Your task to perform on an android device: Clear all items from cart on target. Search for "logitech g pro" on target, select the first entry, and add it to the cart. Image 0: 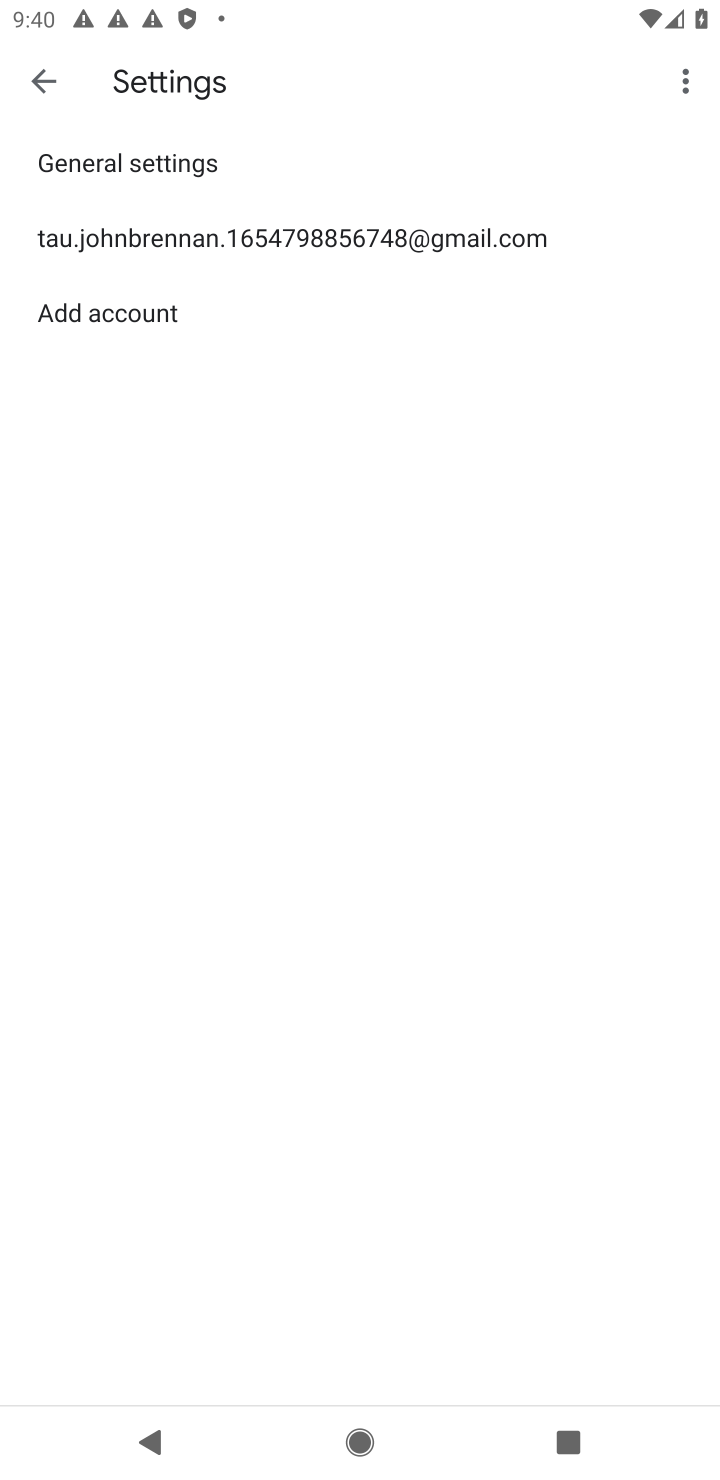
Step 0: click (46, 64)
Your task to perform on an android device: Clear all items from cart on target. Search for "logitech g pro" on target, select the first entry, and add it to the cart. Image 1: 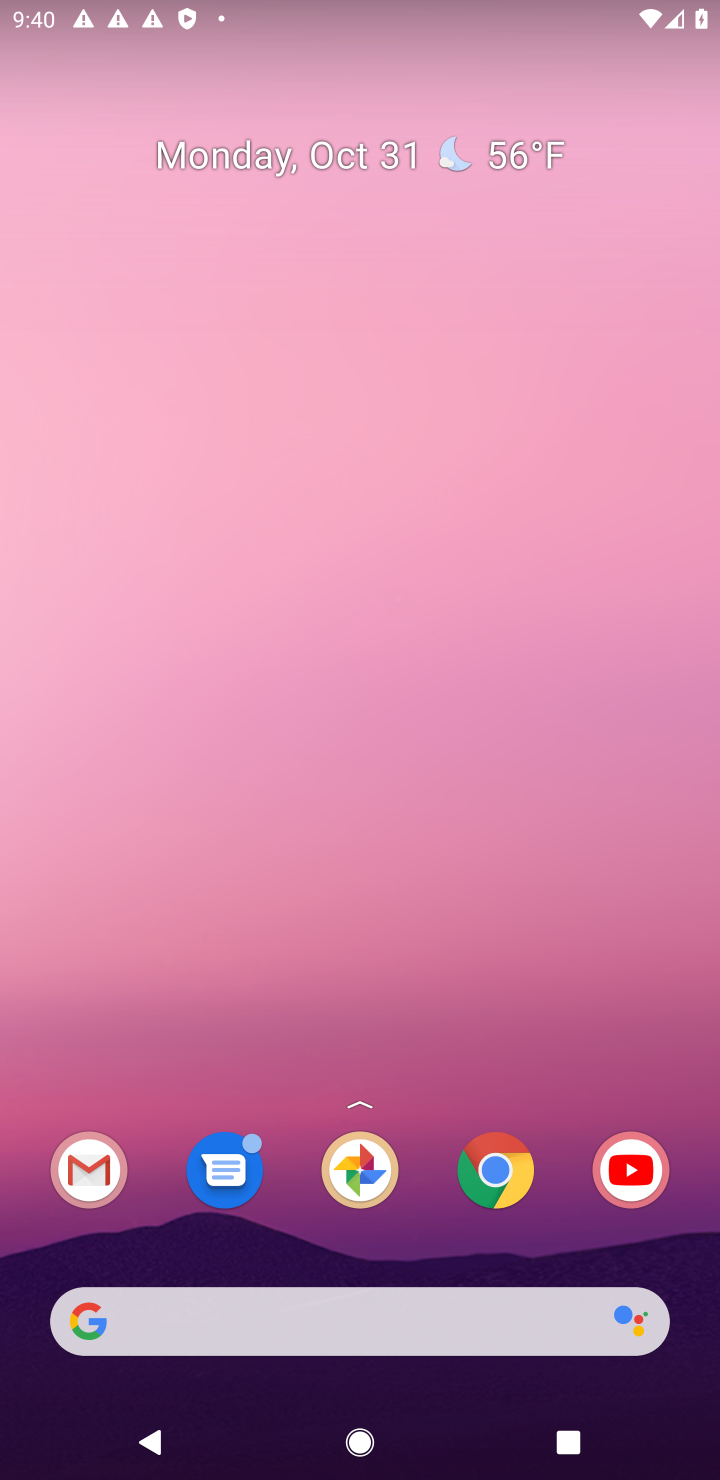
Step 1: click (380, 1316)
Your task to perform on an android device: Clear all items from cart on target. Search for "logitech g pro" on target, select the first entry, and add it to the cart. Image 2: 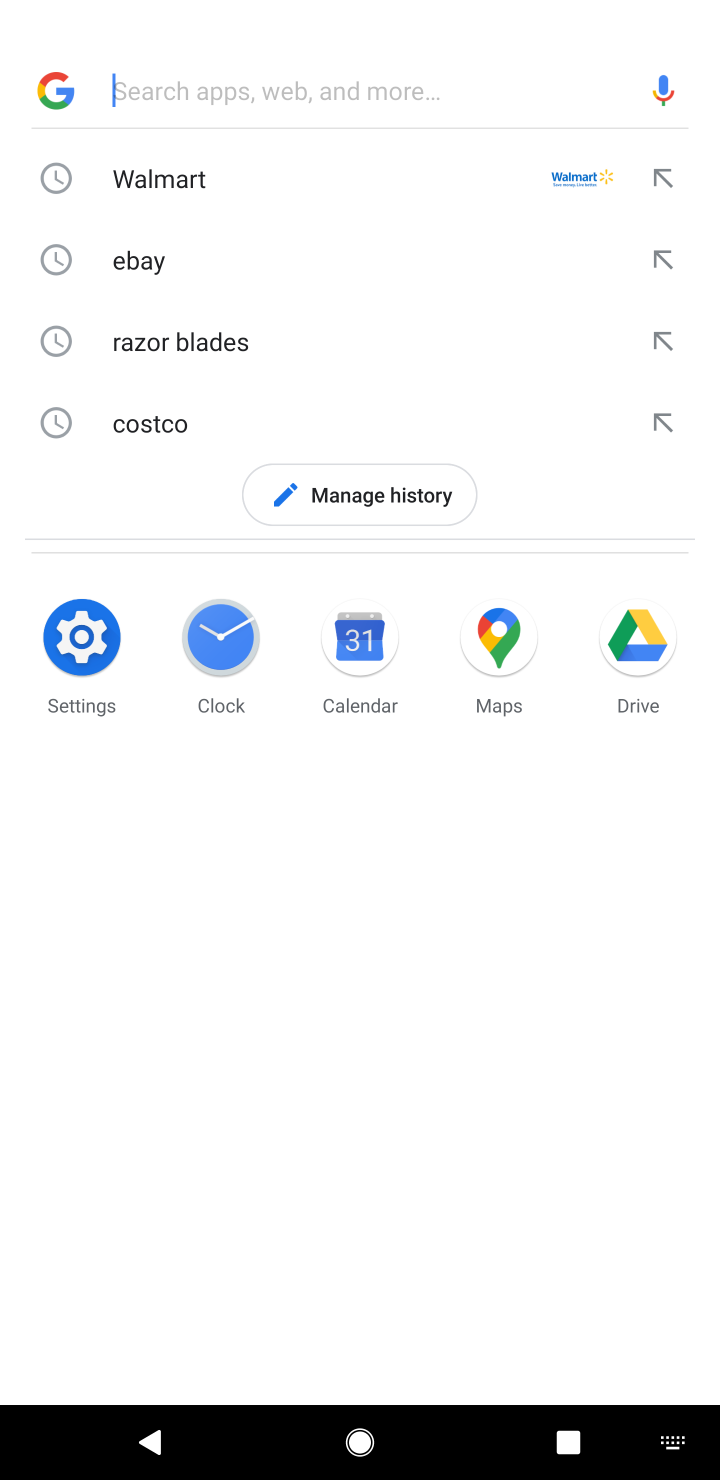
Step 2: type "target"
Your task to perform on an android device: Clear all items from cart on target. Search for "logitech g pro" on target, select the first entry, and add it to the cart. Image 3: 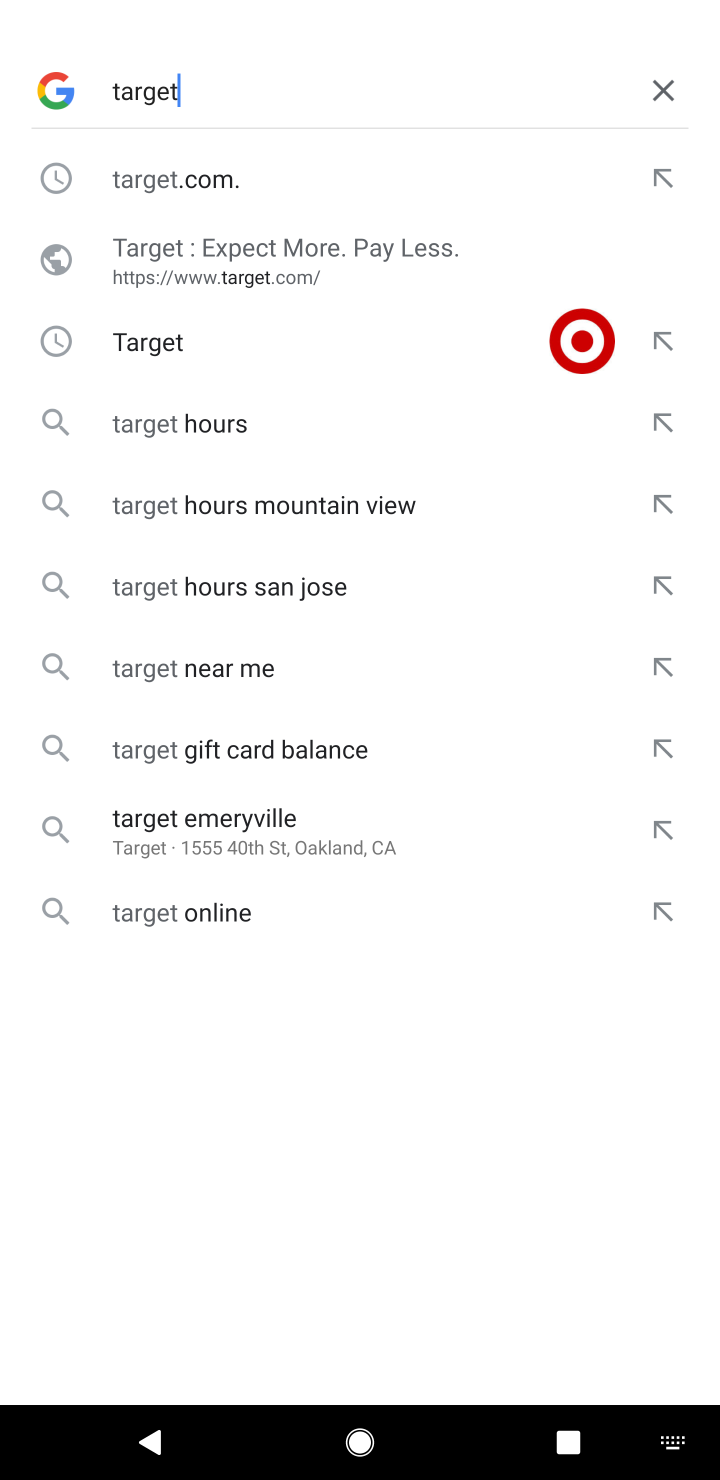
Step 3: click (267, 251)
Your task to perform on an android device: Clear all items from cart on target. Search for "logitech g pro" on target, select the first entry, and add it to the cart. Image 4: 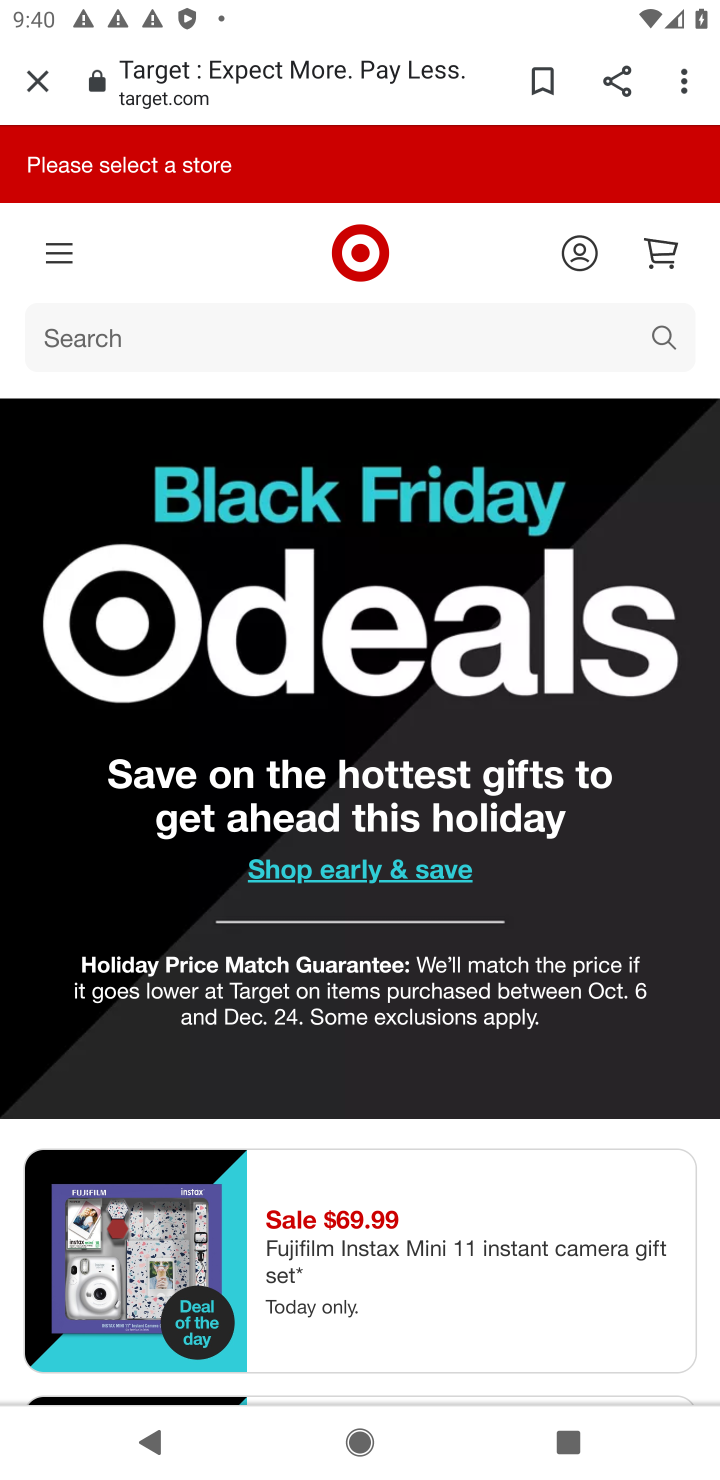
Step 4: click (533, 348)
Your task to perform on an android device: Clear all items from cart on target. Search for "logitech g pro" on target, select the first entry, and add it to the cart. Image 5: 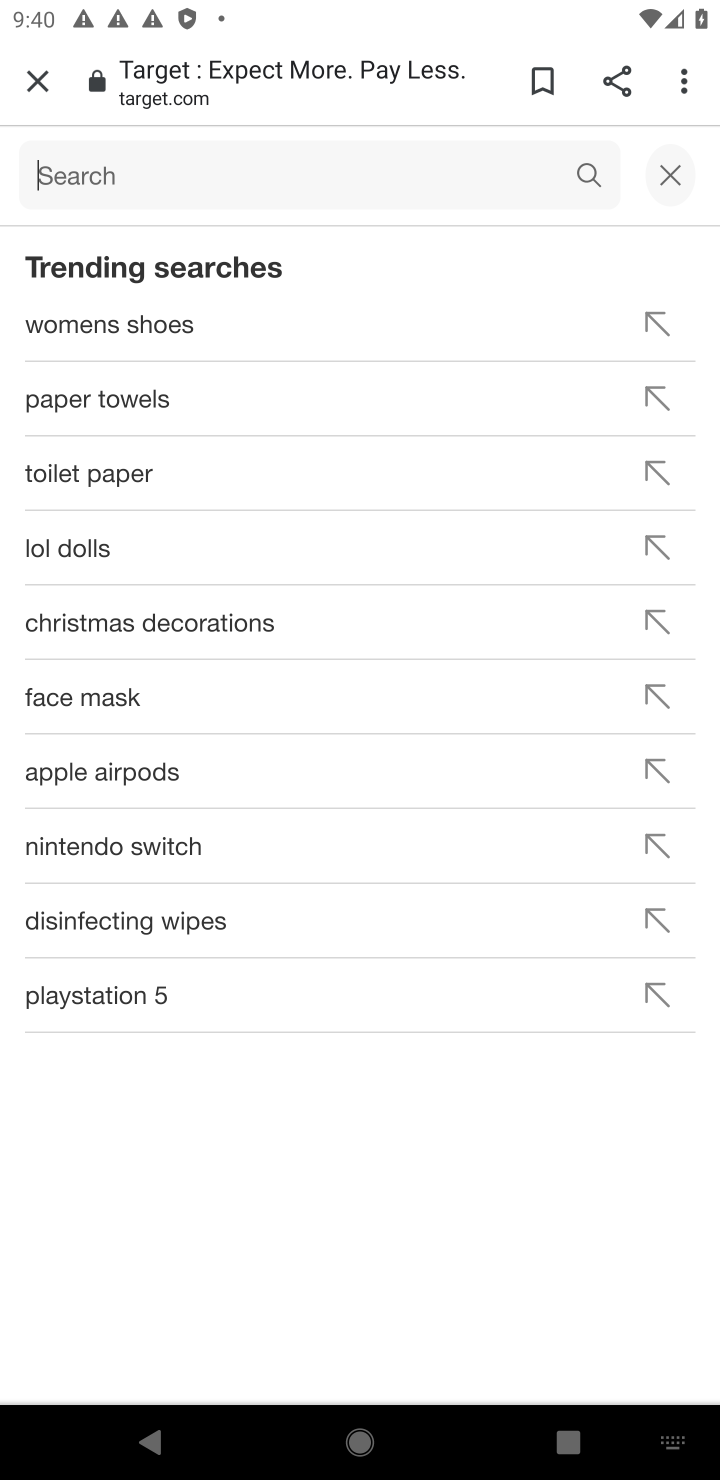
Step 5: type "ogitech g pro"
Your task to perform on an android device: Clear all items from cart on target. Search for "logitech g pro" on target, select the first entry, and add it to the cart. Image 6: 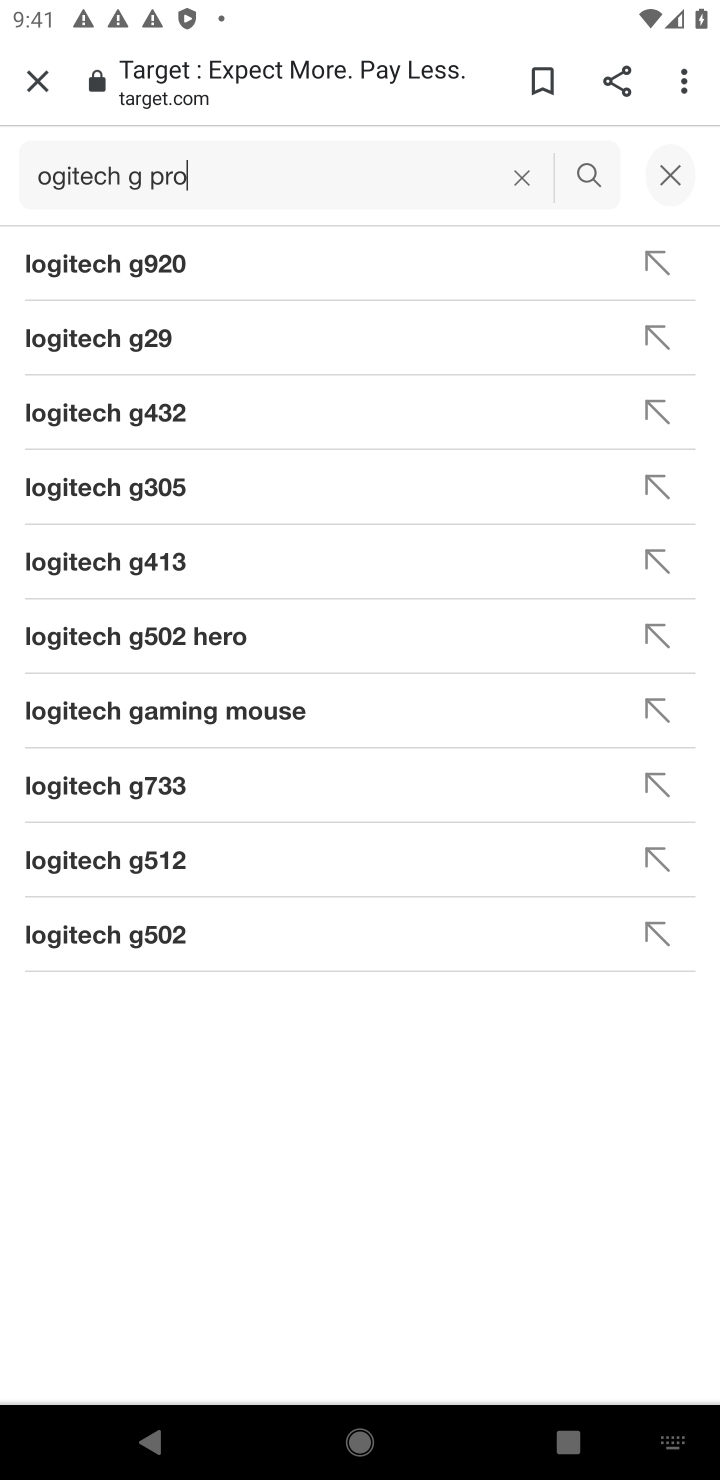
Step 6: click (158, 256)
Your task to perform on an android device: Clear all items from cart on target. Search for "logitech g pro" on target, select the first entry, and add it to the cart. Image 7: 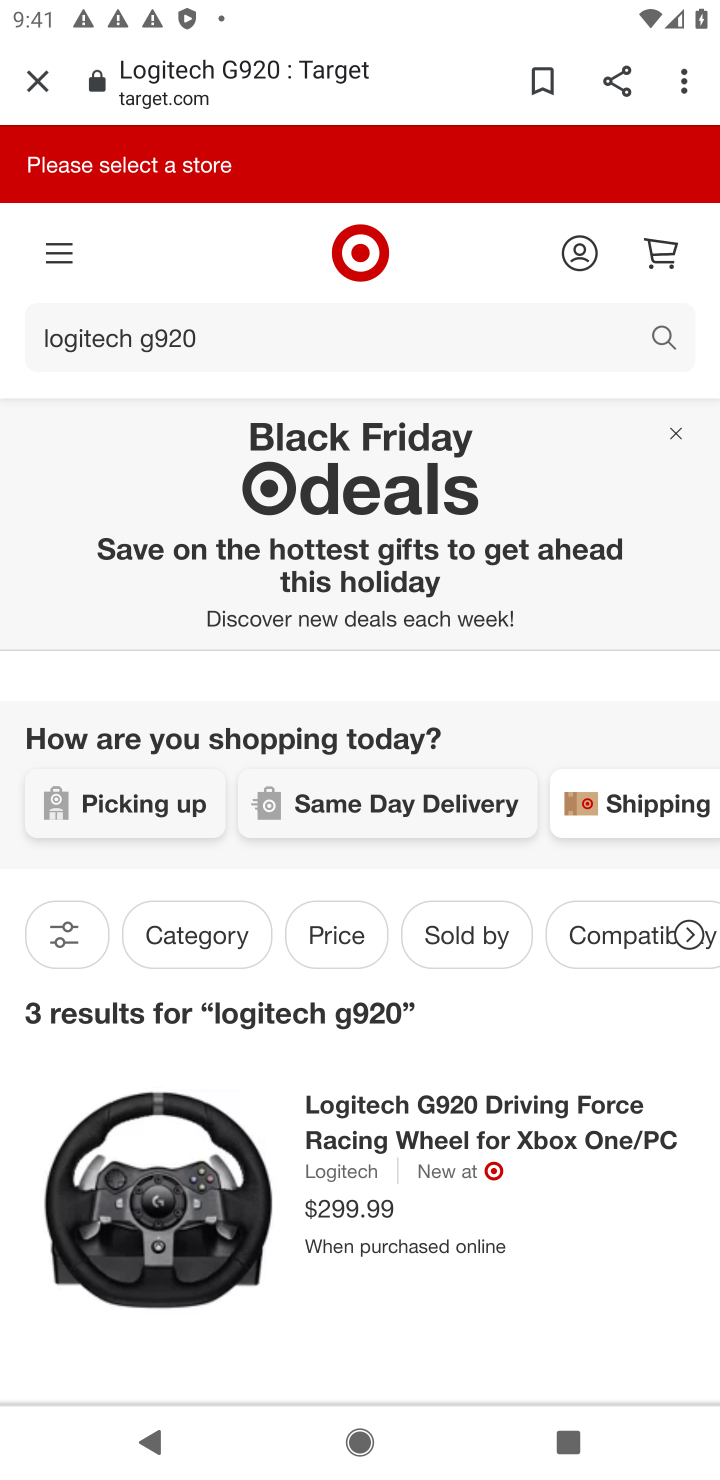
Step 7: click (541, 1112)
Your task to perform on an android device: Clear all items from cart on target. Search for "logitech g pro" on target, select the first entry, and add it to the cart. Image 8: 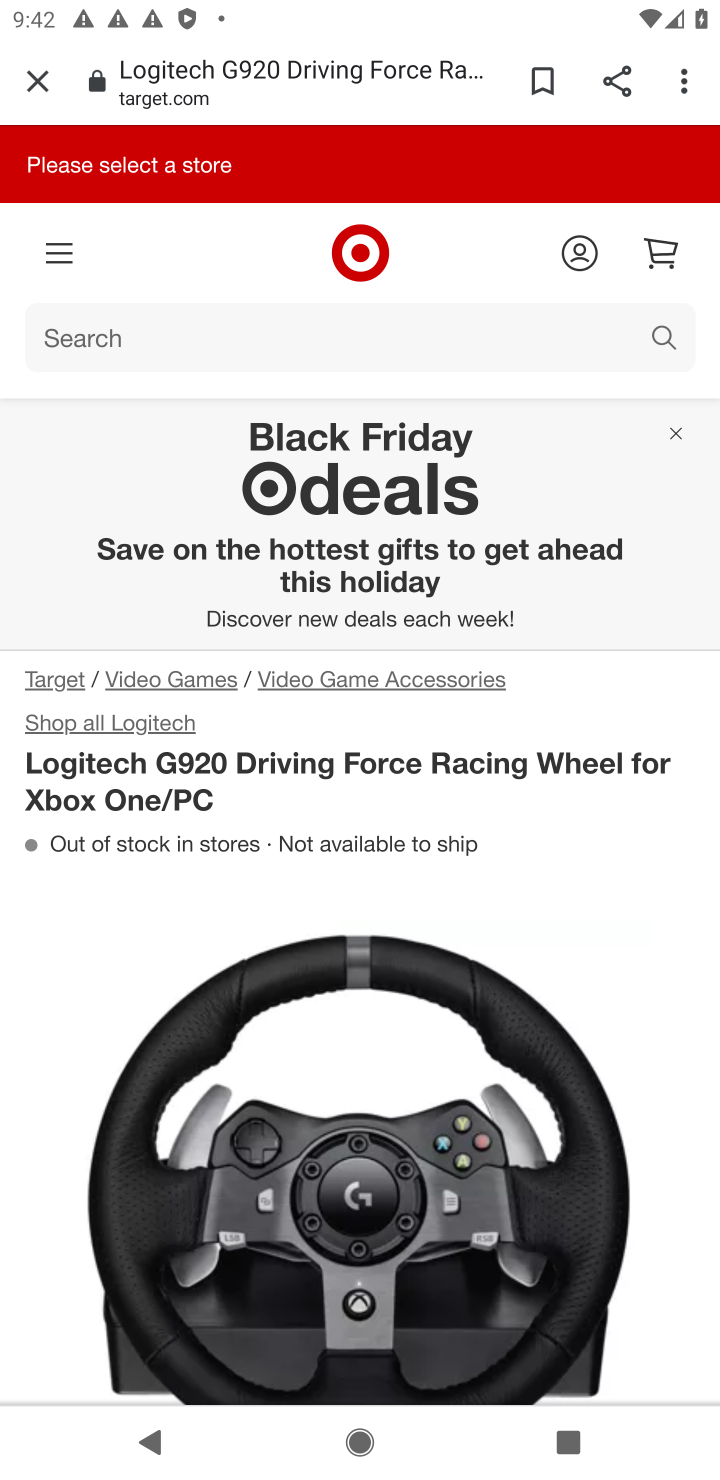
Step 8: drag from (474, 1259) to (419, 605)
Your task to perform on an android device: Clear all items from cart on target. Search for "logitech g pro" on target, select the first entry, and add it to the cart. Image 9: 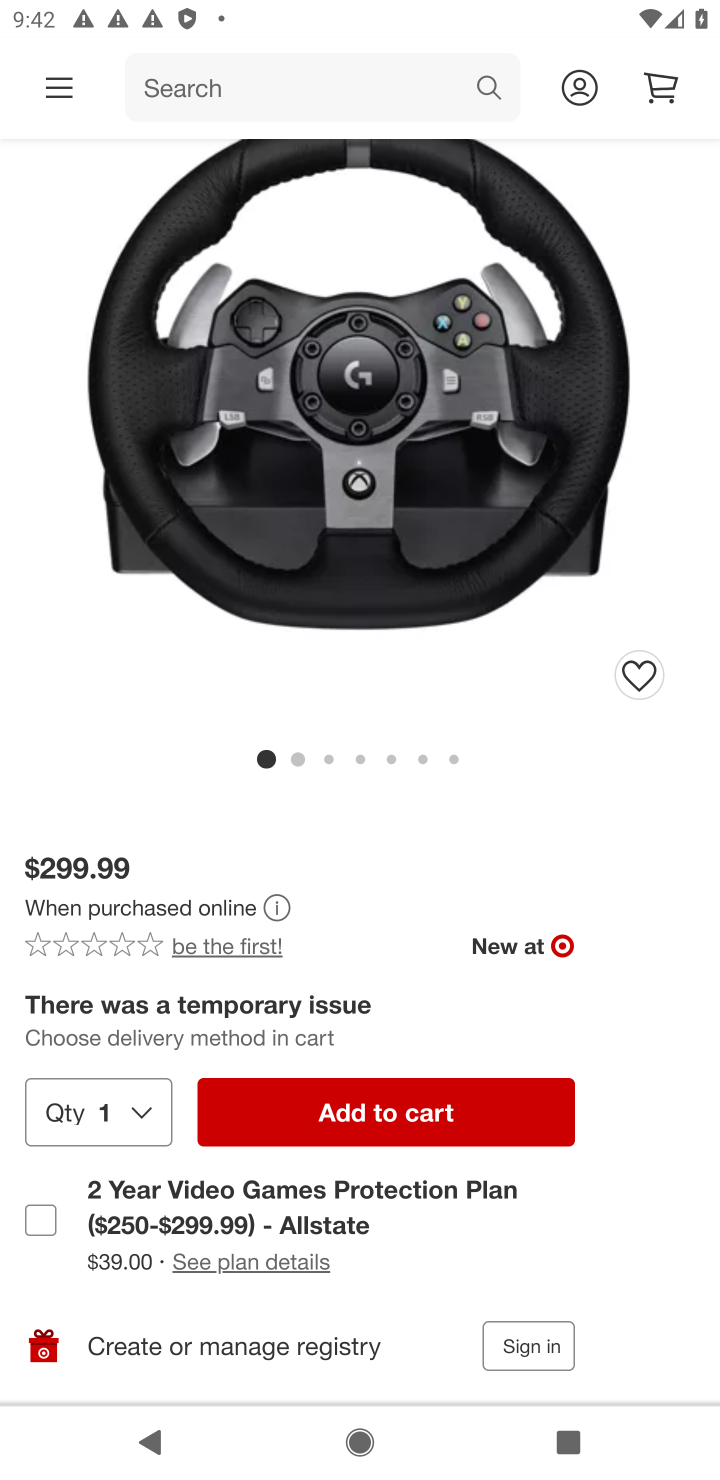
Step 9: click (339, 1292)
Your task to perform on an android device: Clear all items from cart on target. Search for "logitech g pro" on target, select the first entry, and add it to the cart. Image 10: 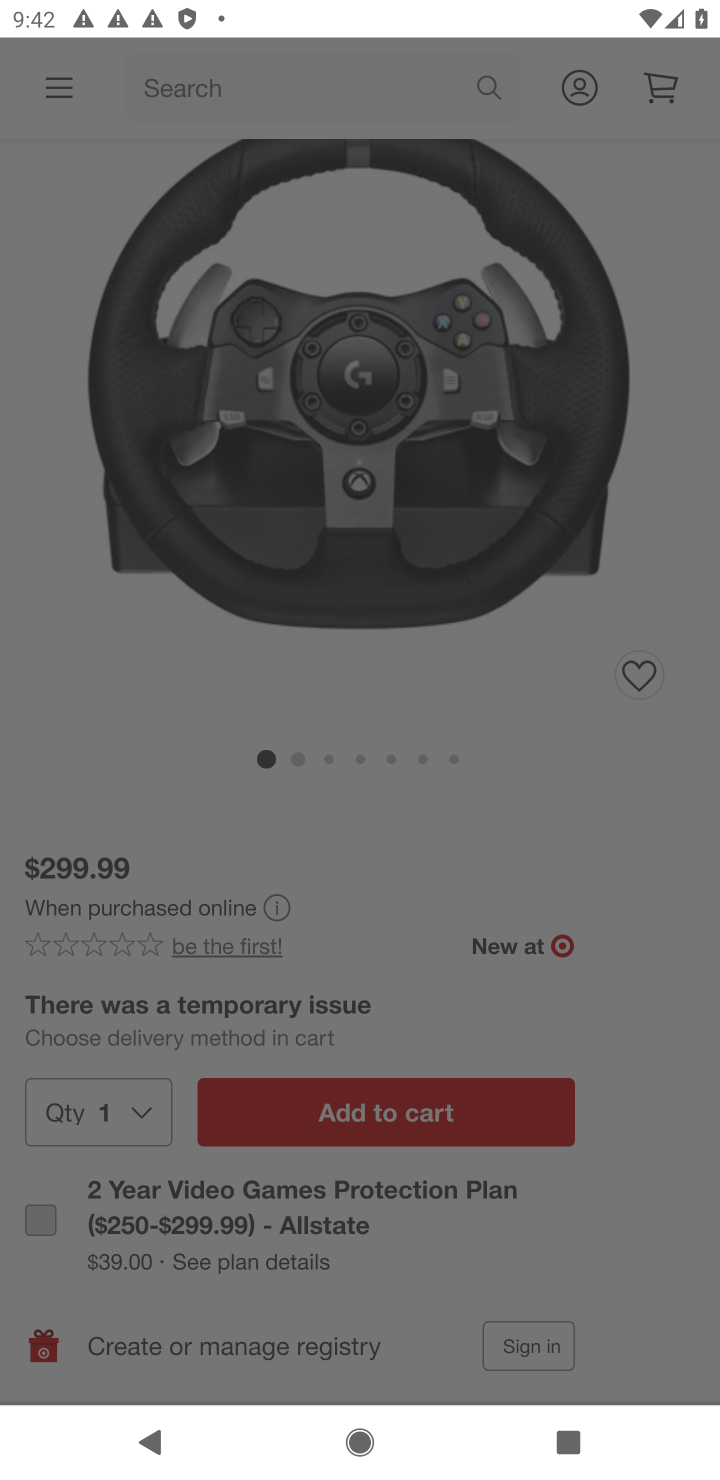
Step 10: click (388, 1101)
Your task to perform on an android device: Clear all items from cart on target. Search for "logitech g pro" on target, select the first entry, and add it to the cart. Image 11: 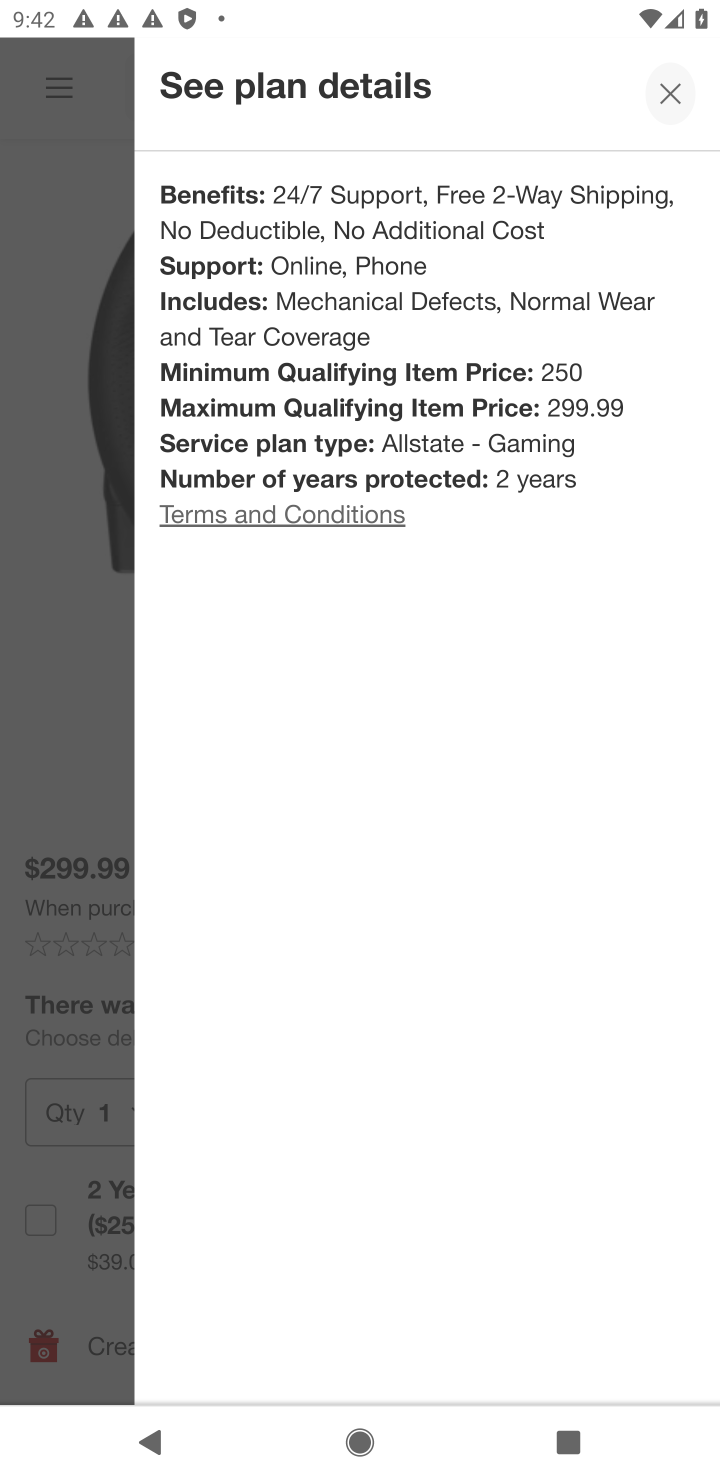
Step 11: click (672, 90)
Your task to perform on an android device: Clear all items from cart on target. Search for "logitech g pro" on target, select the first entry, and add it to the cart. Image 12: 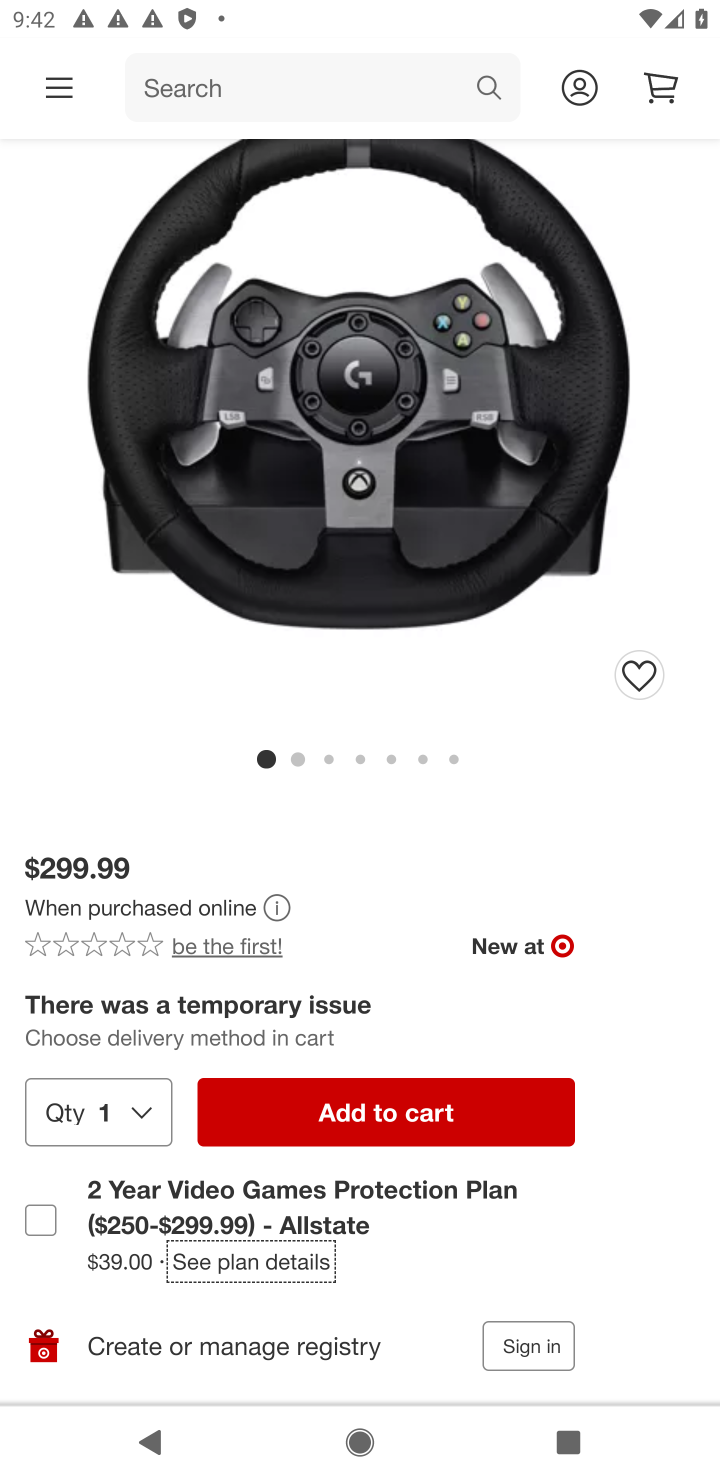
Step 12: click (374, 1111)
Your task to perform on an android device: Clear all items from cart on target. Search for "logitech g pro" on target, select the first entry, and add it to the cart. Image 13: 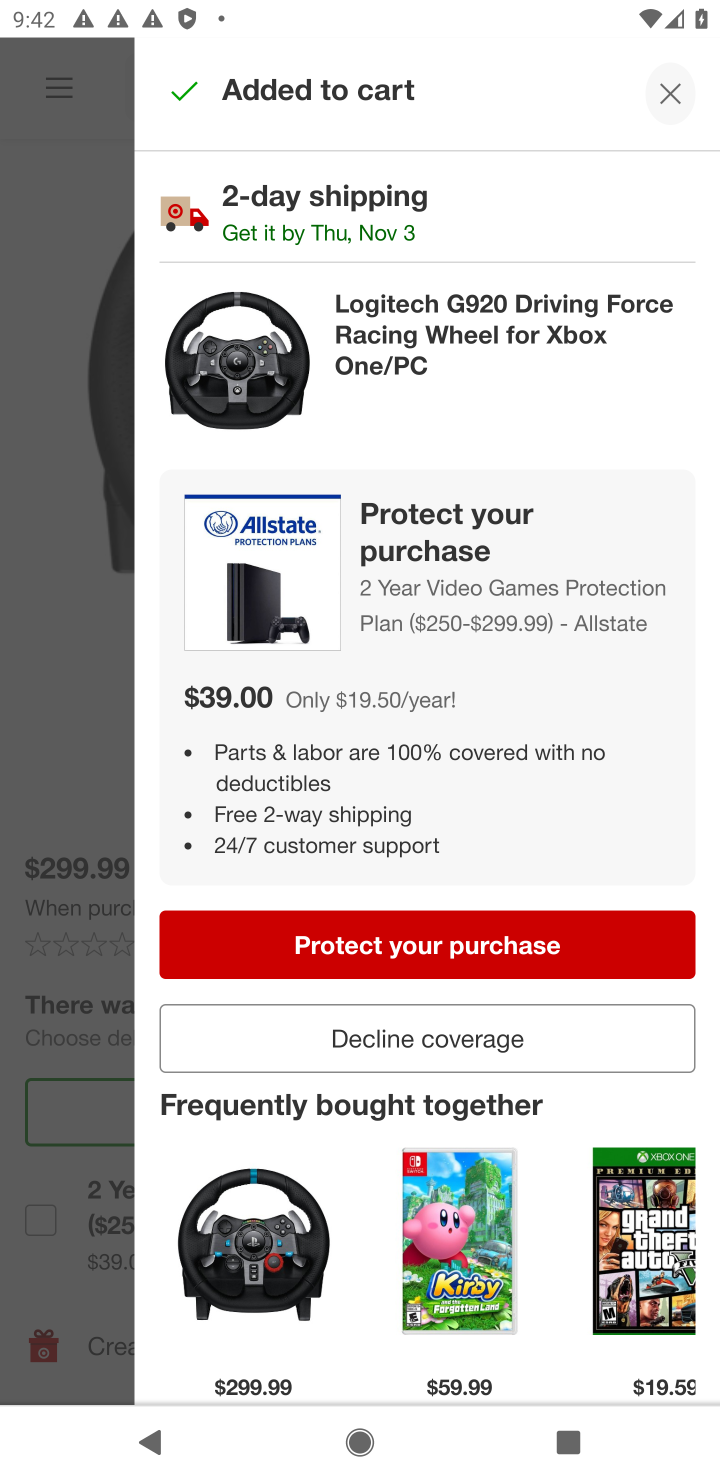
Step 13: click (670, 90)
Your task to perform on an android device: Clear all items from cart on target. Search for "logitech g pro" on target, select the first entry, and add it to the cart. Image 14: 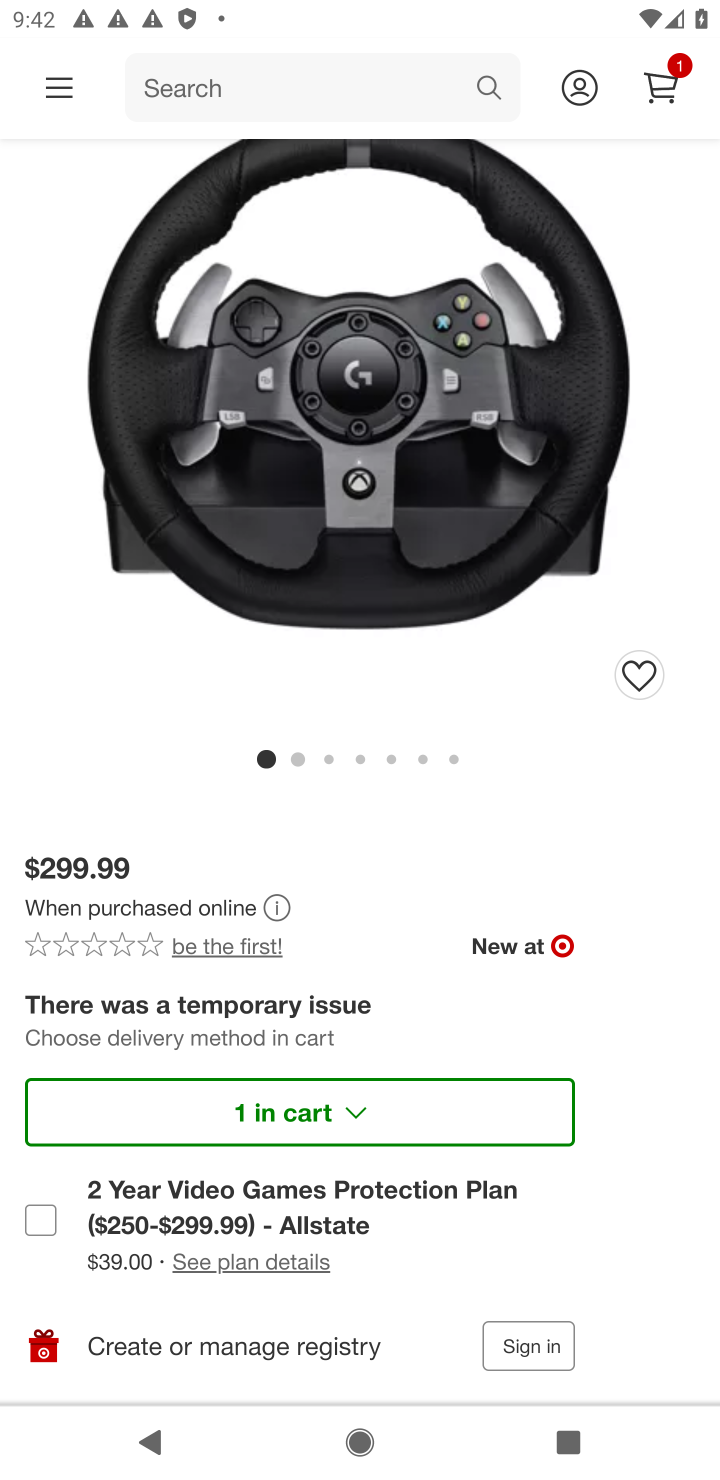
Step 14: drag from (335, 1056) to (335, 861)
Your task to perform on an android device: Clear all items from cart on target. Search for "logitech g pro" on target, select the first entry, and add it to the cart. Image 15: 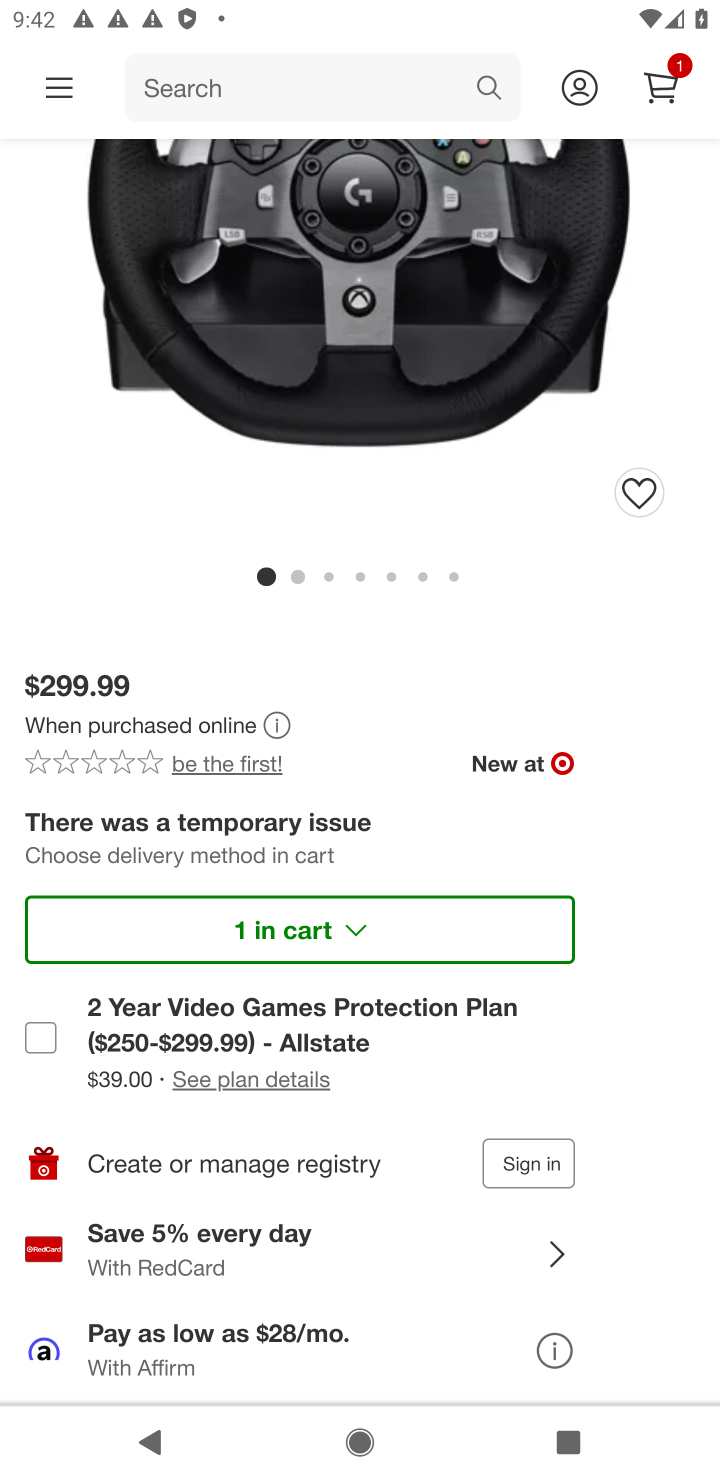
Step 15: click (341, 947)
Your task to perform on an android device: Clear all items from cart on target. Search for "logitech g pro" on target, select the first entry, and add it to the cart. Image 16: 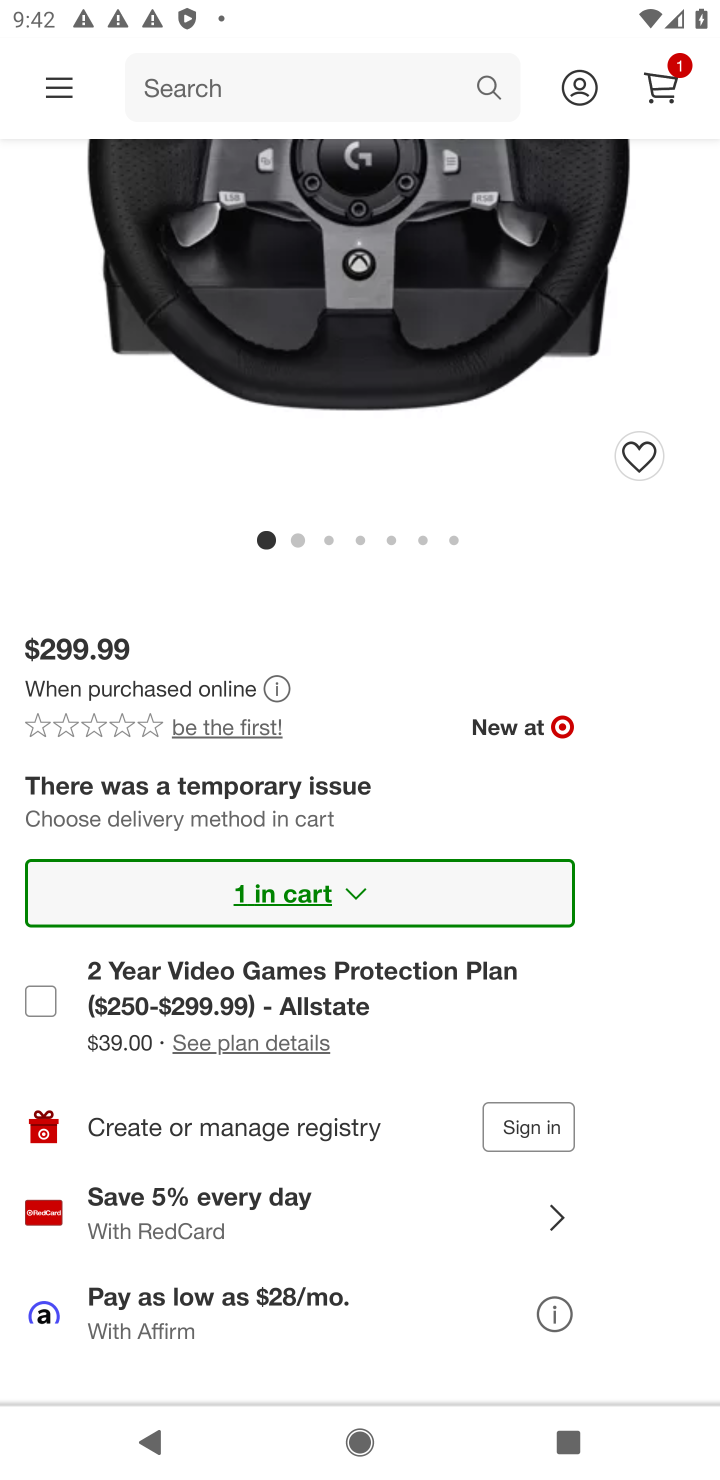
Step 16: task complete